Your task to perform on an android device: change timer sound Image 0: 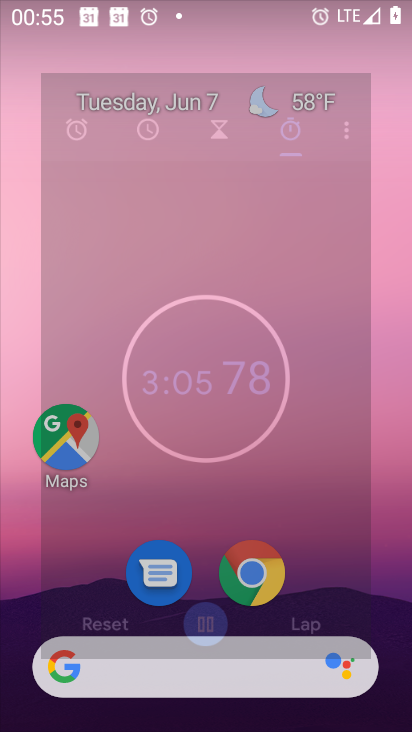
Step 0: press home button
Your task to perform on an android device: change timer sound Image 1: 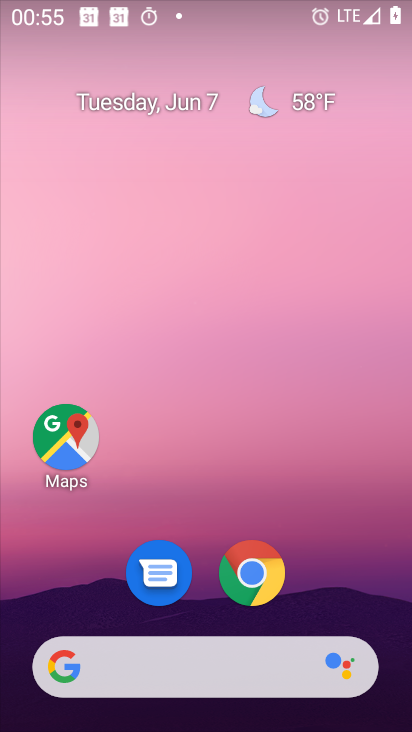
Step 1: drag from (384, 570) to (293, 188)
Your task to perform on an android device: change timer sound Image 2: 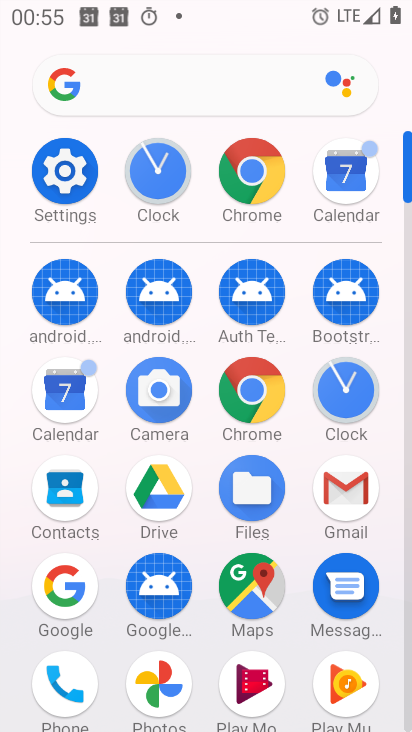
Step 2: click (134, 163)
Your task to perform on an android device: change timer sound Image 3: 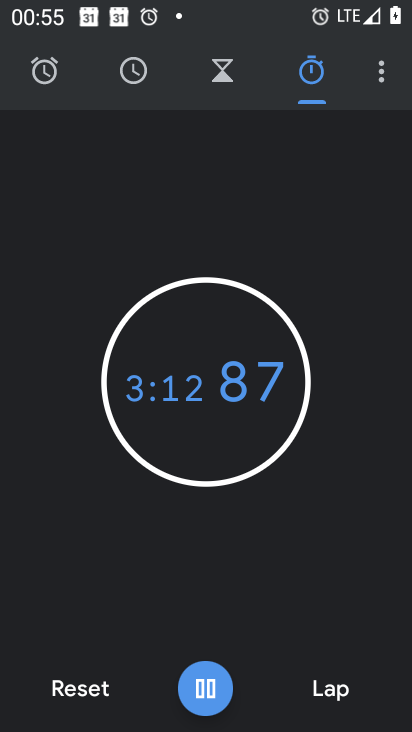
Step 3: click (371, 84)
Your task to perform on an android device: change timer sound Image 4: 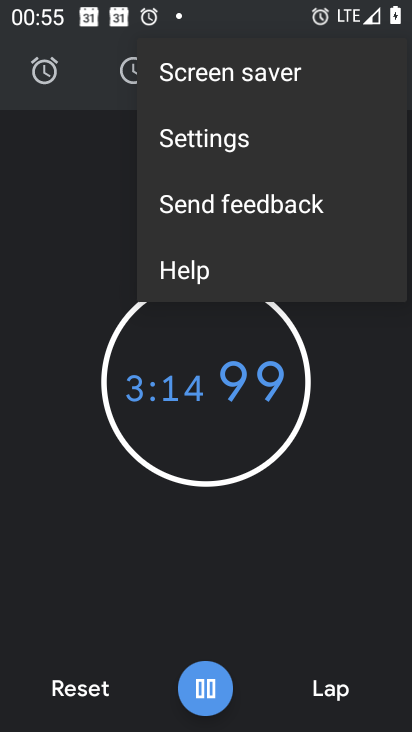
Step 4: click (234, 159)
Your task to perform on an android device: change timer sound Image 5: 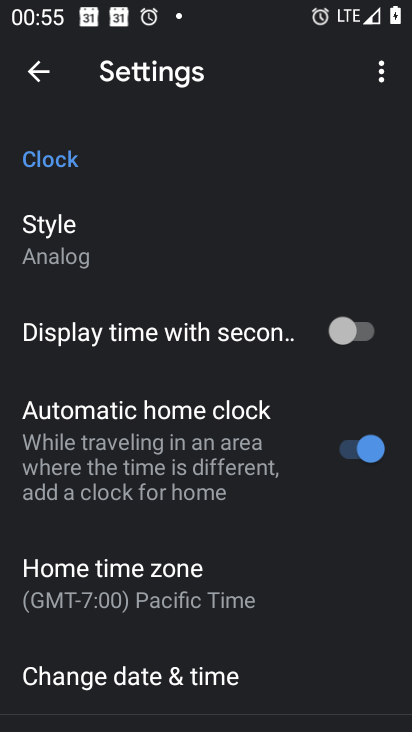
Step 5: drag from (269, 586) to (175, 111)
Your task to perform on an android device: change timer sound Image 6: 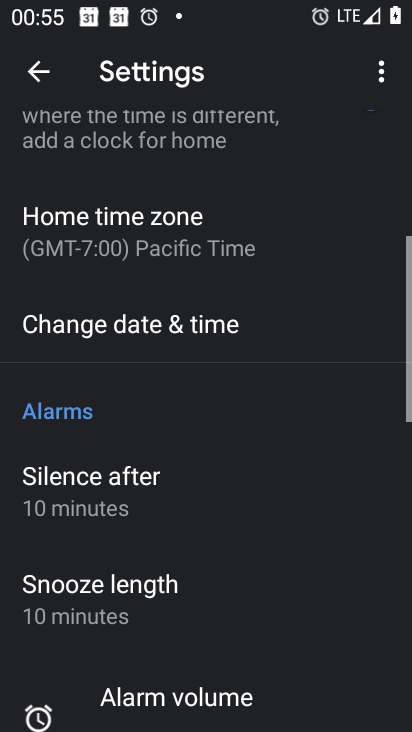
Step 6: drag from (234, 492) to (191, 166)
Your task to perform on an android device: change timer sound Image 7: 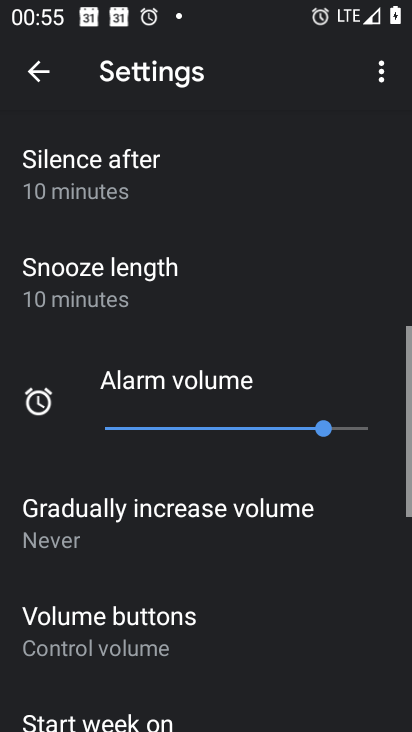
Step 7: drag from (241, 577) to (174, 161)
Your task to perform on an android device: change timer sound Image 8: 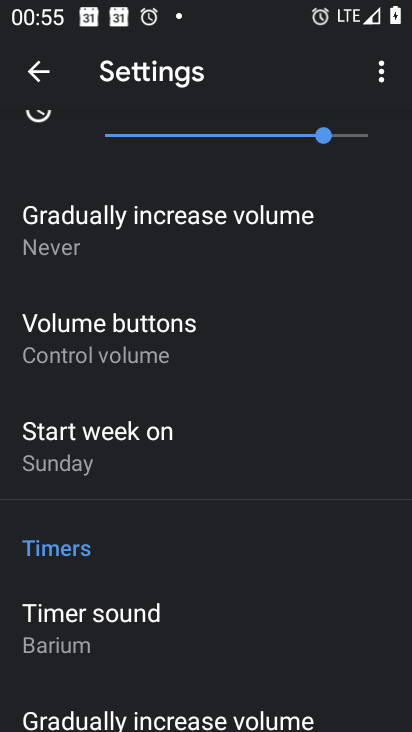
Step 8: drag from (211, 429) to (197, 338)
Your task to perform on an android device: change timer sound Image 9: 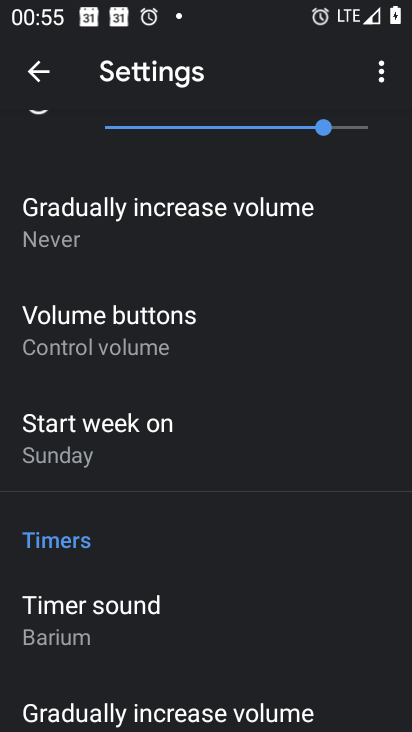
Step 9: click (138, 612)
Your task to perform on an android device: change timer sound Image 10: 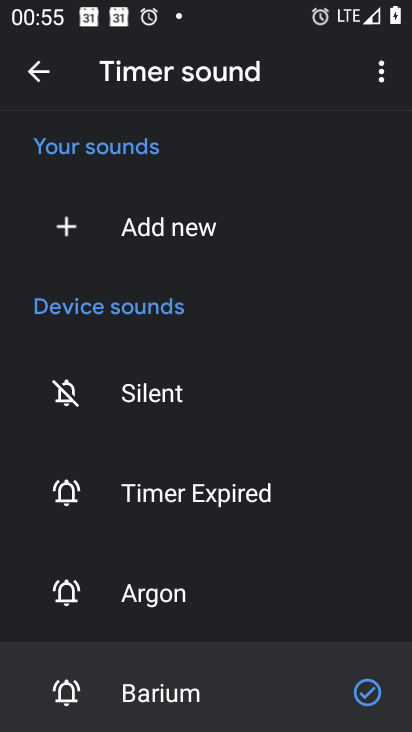
Step 10: click (160, 610)
Your task to perform on an android device: change timer sound Image 11: 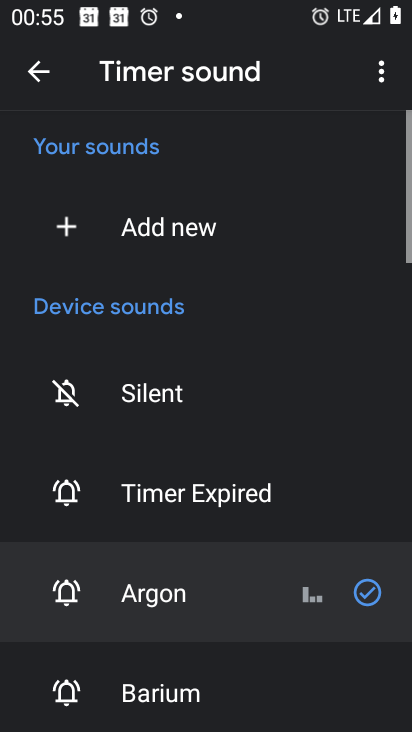
Step 11: task complete